Your task to perform on an android device: Open the map Image 0: 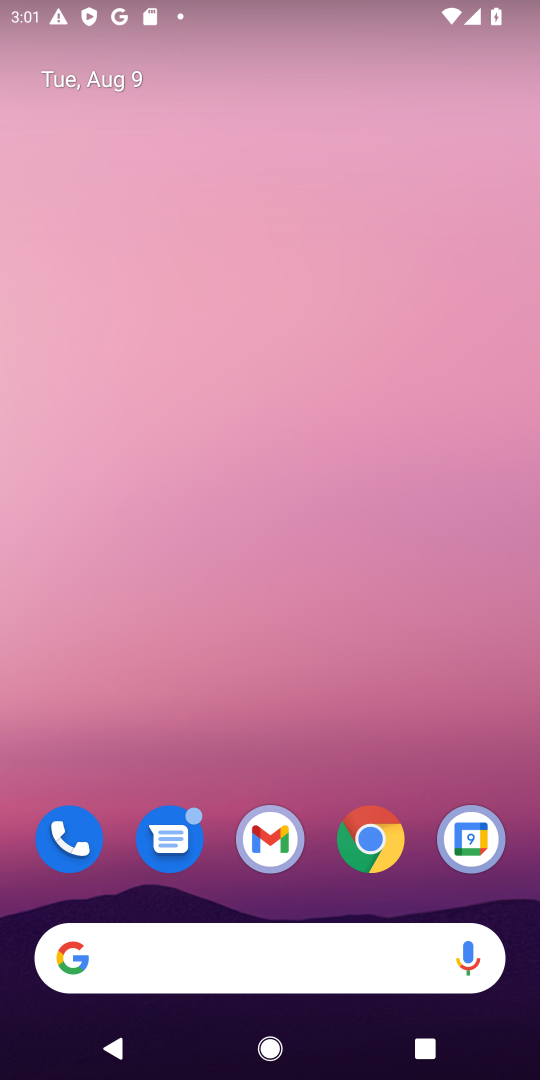
Step 0: press home button
Your task to perform on an android device: Open the map Image 1: 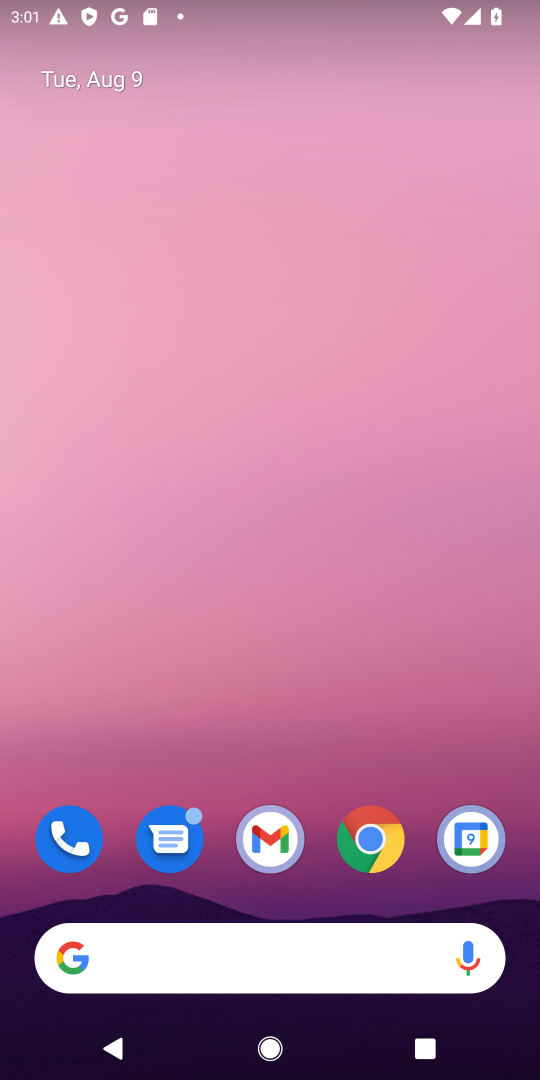
Step 1: drag from (302, 767) to (343, 3)
Your task to perform on an android device: Open the map Image 2: 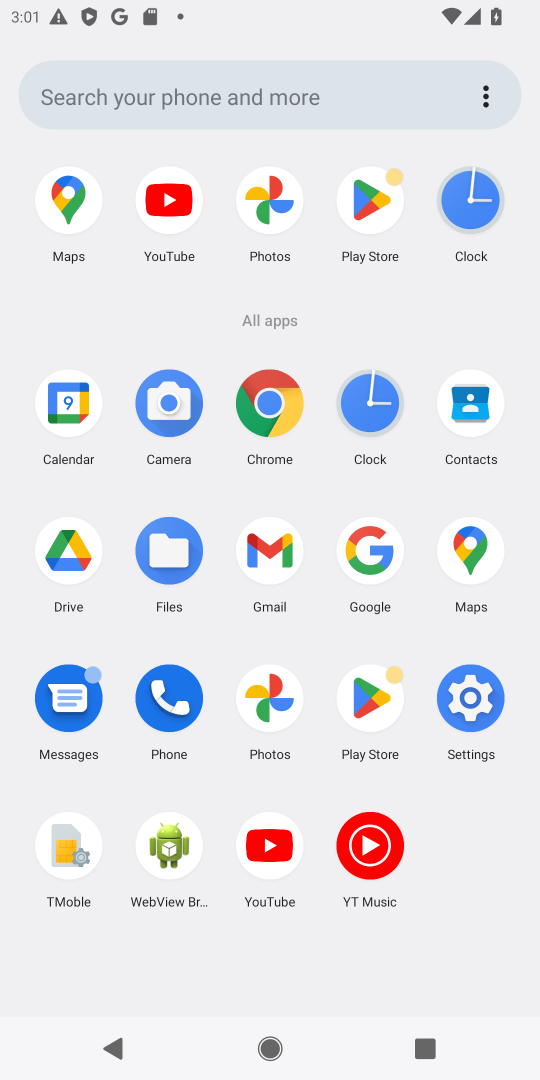
Step 2: click (472, 544)
Your task to perform on an android device: Open the map Image 3: 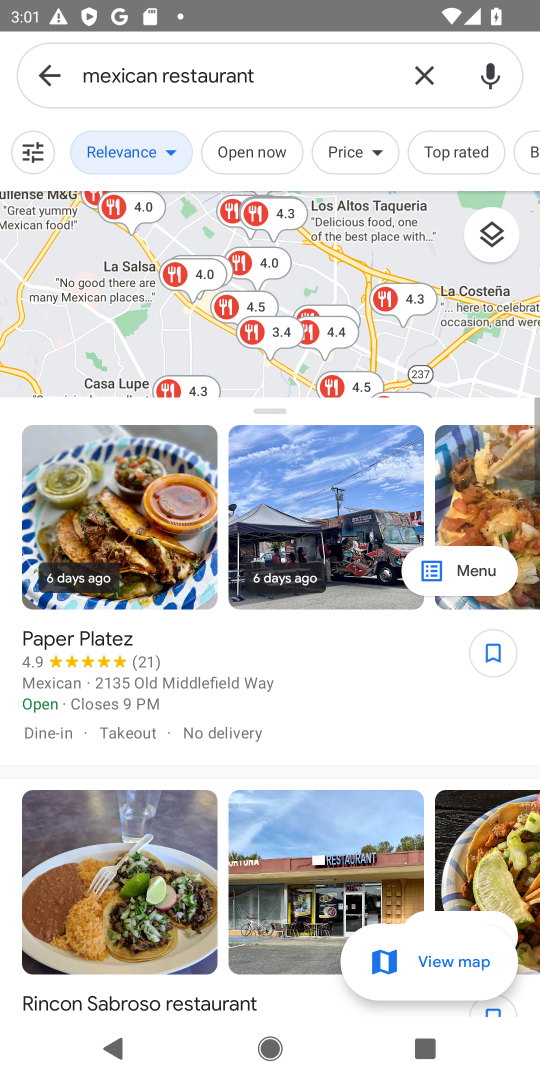
Step 3: click (47, 74)
Your task to perform on an android device: Open the map Image 4: 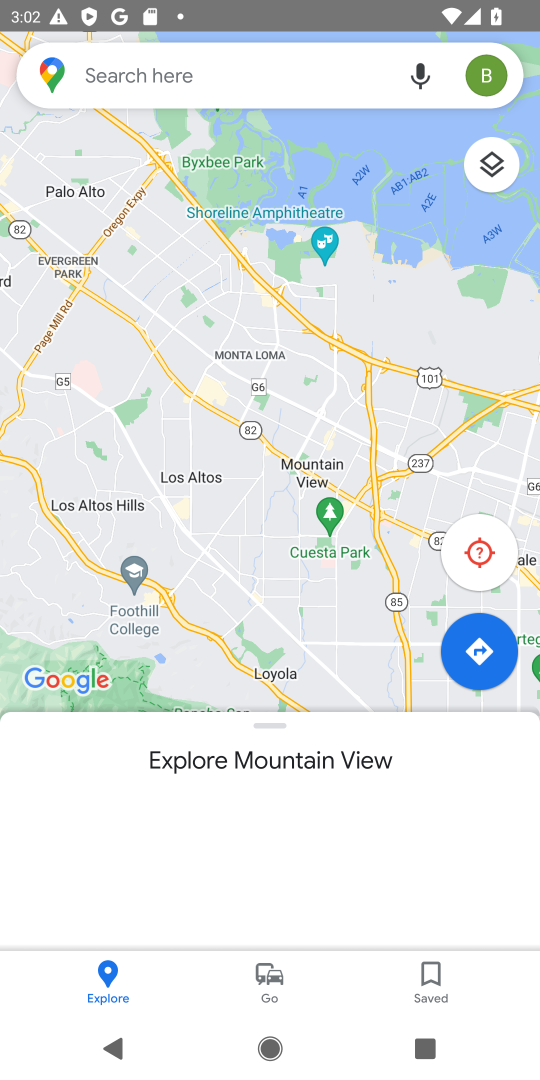
Step 4: task complete